Your task to perform on an android device: What's the weather going to be tomorrow? Image 0: 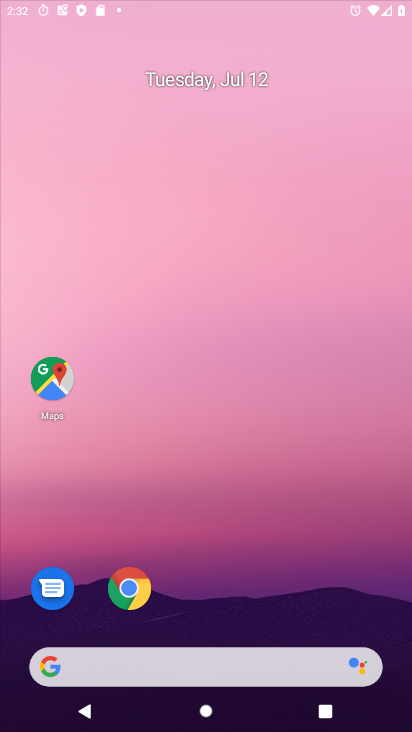
Step 0: drag from (194, 554) to (212, 148)
Your task to perform on an android device: What's the weather going to be tomorrow? Image 1: 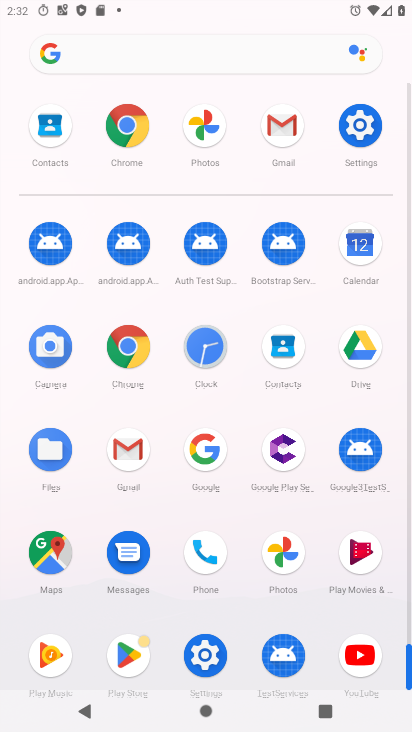
Step 1: click (156, 56)
Your task to perform on an android device: What's the weather going to be tomorrow? Image 2: 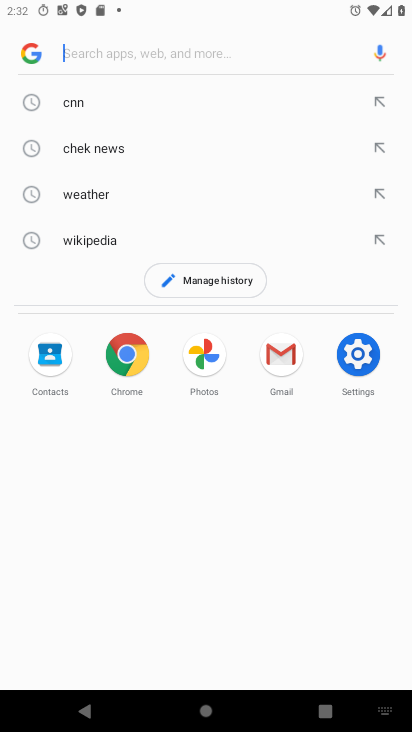
Step 2: type "What's the weather going to be tomorrow?"
Your task to perform on an android device: What's the weather going to be tomorrow? Image 3: 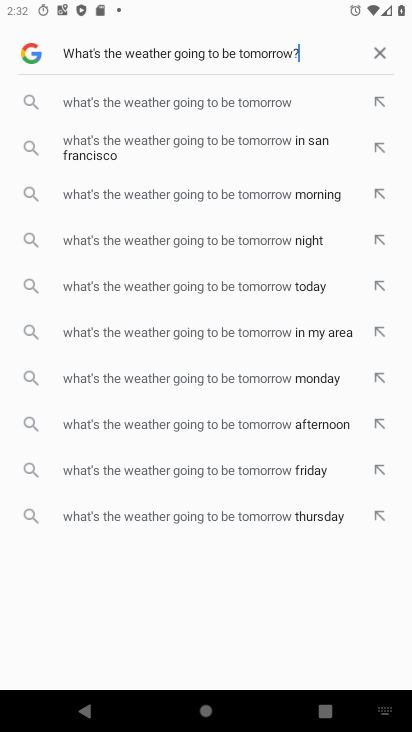
Step 3: type ""
Your task to perform on an android device: What's the weather going to be tomorrow? Image 4: 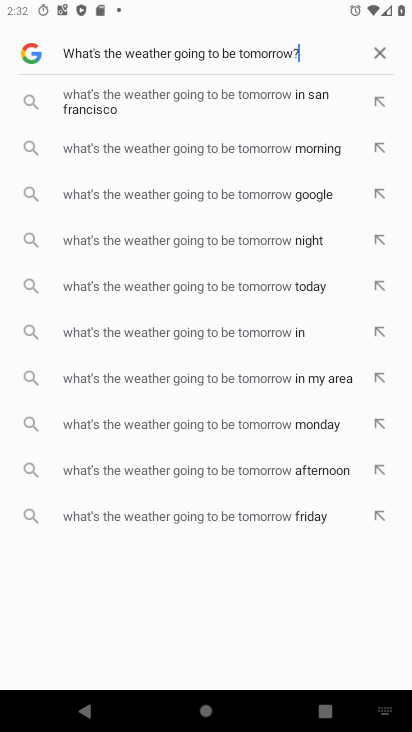
Step 4: click (279, 151)
Your task to perform on an android device: What's the weather going to be tomorrow? Image 5: 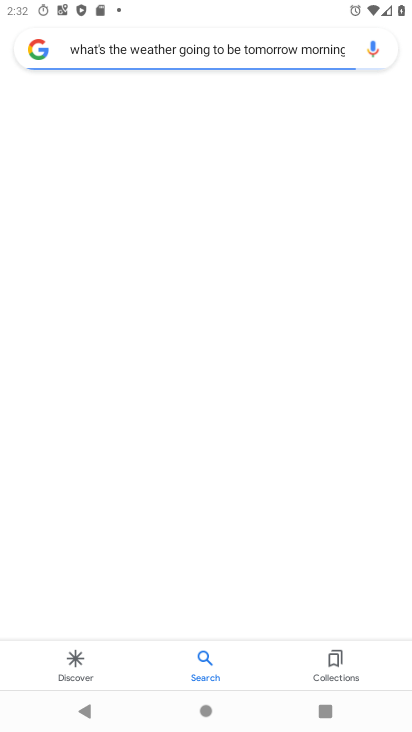
Step 5: task complete